Your task to perform on an android device: turn notification dots on Image 0: 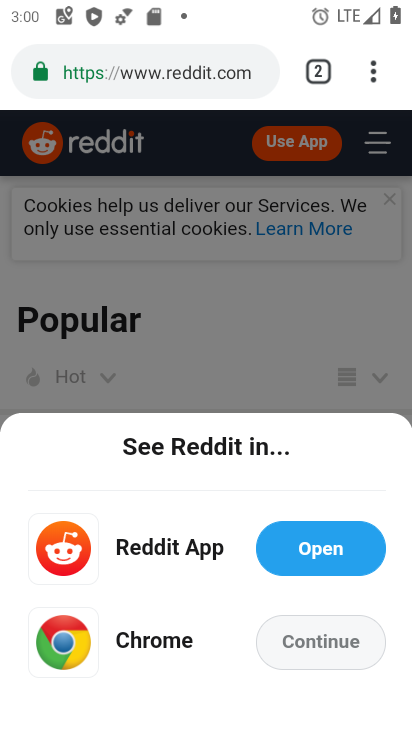
Step 0: press home button
Your task to perform on an android device: turn notification dots on Image 1: 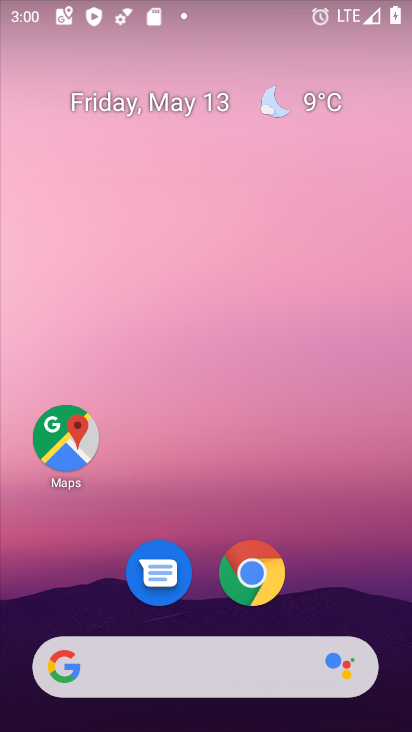
Step 1: drag from (328, 578) to (224, 120)
Your task to perform on an android device: turn notification dots on Image 2: 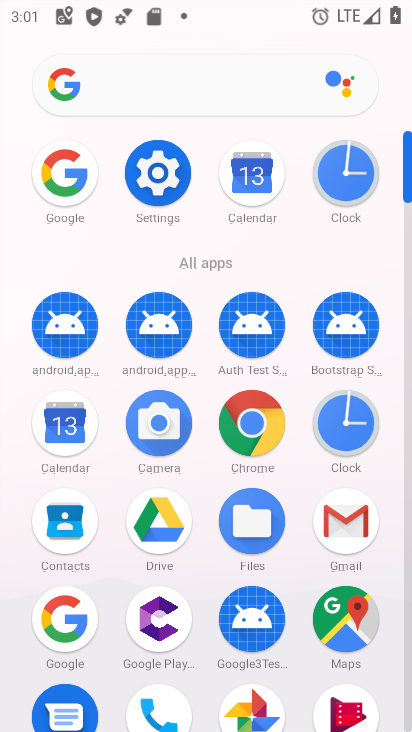
Step 2: click (154, 173)
Your task to perform on an android device: turn notification dots on Image 3: 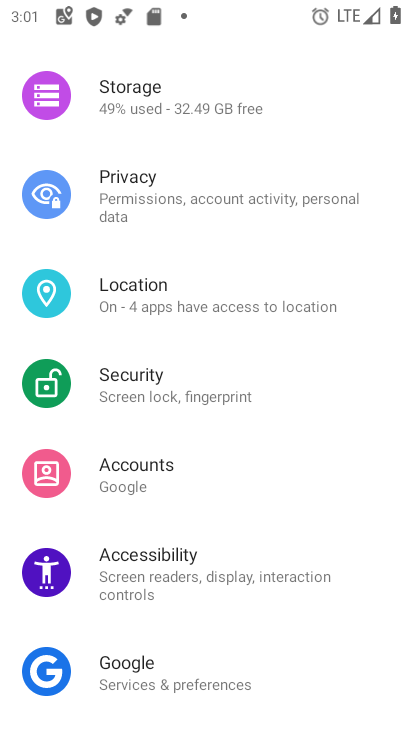
Step 3: drag from (199, 313) to (166, 420)
Your task to perform on an android device: turn notification dots on Image 4: 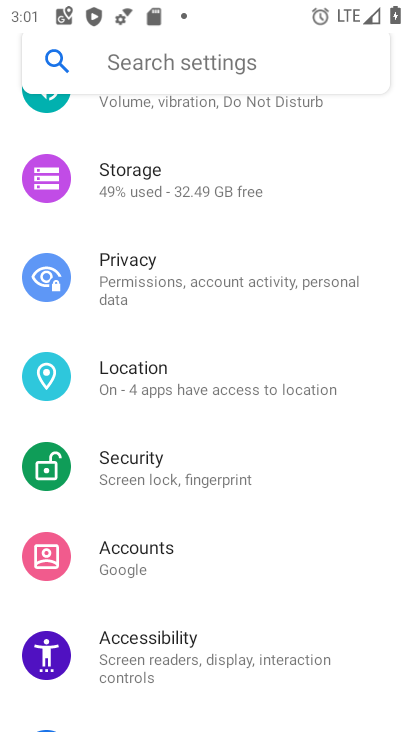
Step 4: drag from (192, 227) to (166, 441)
Your task to perform on an android device: turn notification dots on Image 5: 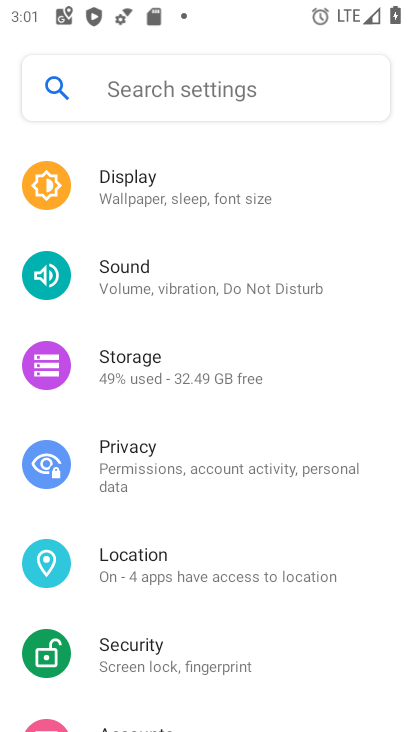
Step 5: drag from (186, 255) to (177, 443)
Your task to perform on an android device: turn notification dots on Image 6: 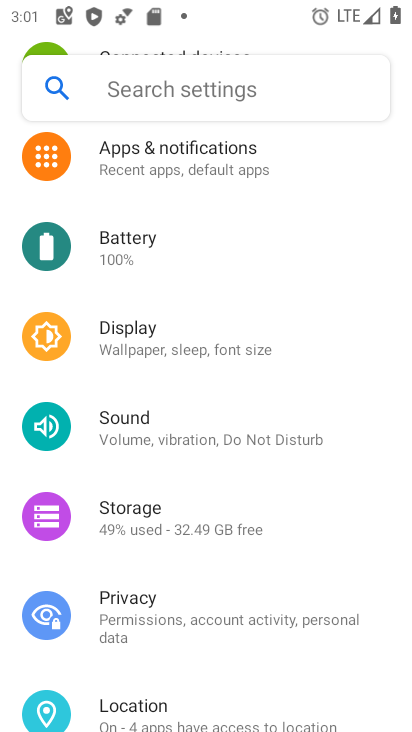
Step 6: drag from (181, 284) to (180, 455)
Your task to perform on an android device: turn notification dots on Image 7: 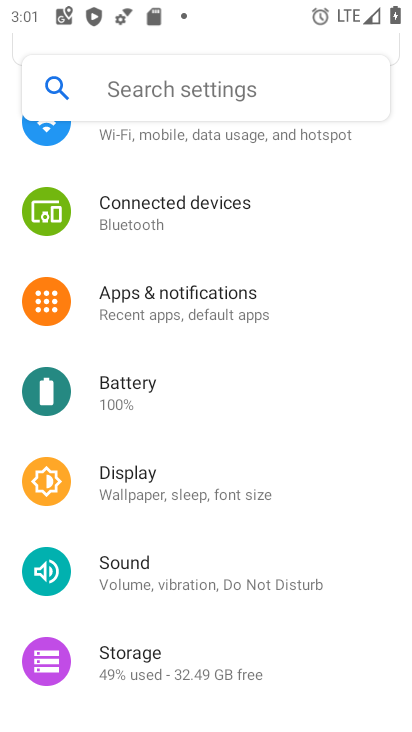
Step 7: click (200, 304)
Your task to perform on an android device: turn notification dots on Image 8: 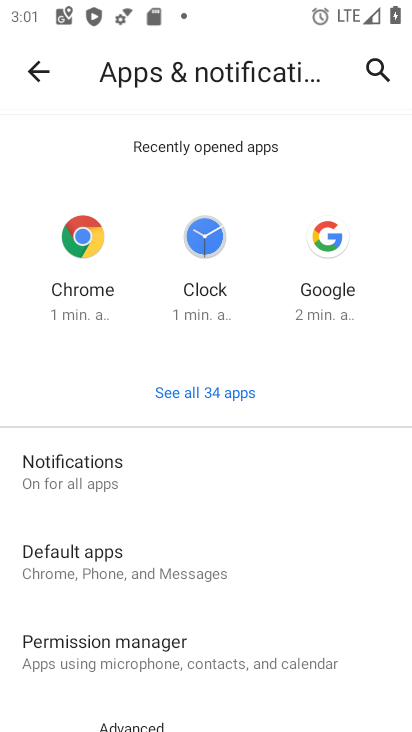
Step 8: click (91, 467)
Your task to perform on an android device: turn notification dots on Image 9: 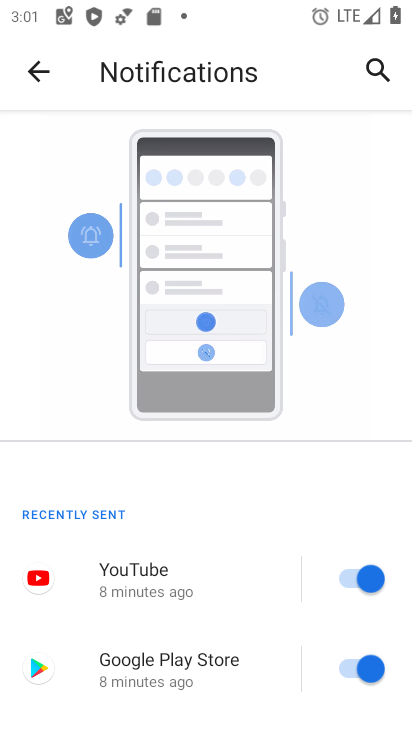
Step 9: drag from (180, 621) to (233, 371)
Your task to perform on an android device: turn notification dots on Image 10: 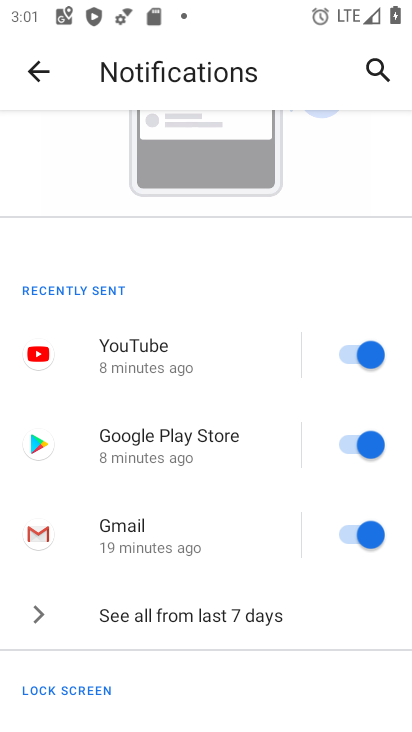
Step 10: drag from (184, 649) to (206, 441)
Your task to perform on an android device: turn notification dots on Image 11: 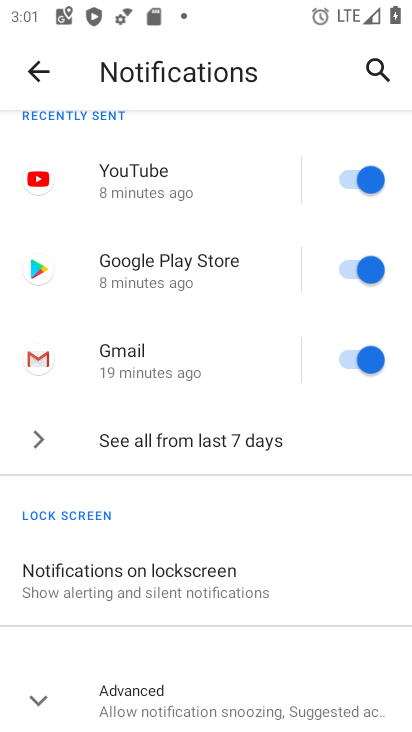
Step 11: drag from (219, 582) to (270, 465)
Your task to perform on an android device: turn notification dots on Image 12: 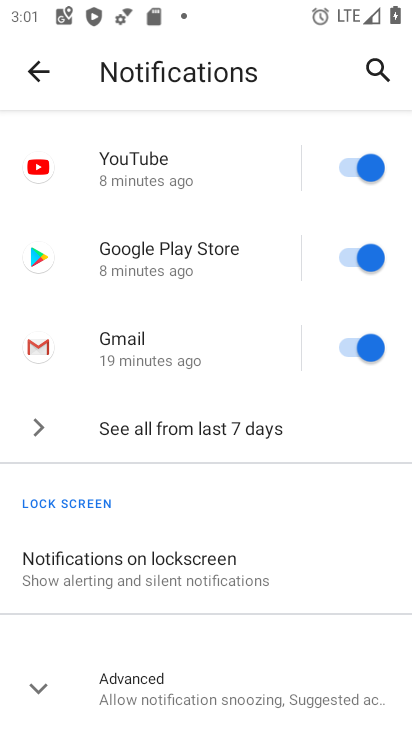
Step 12: click (183, 688)
Your task to perform on an android device: turn notification dots on Image 13: 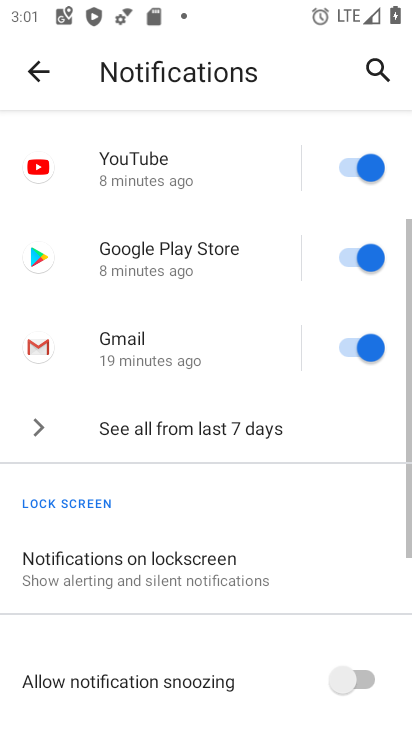
Step 13: task complete